Your task to perform on an android device: Show me productivity apps on the Play Store Image 0: 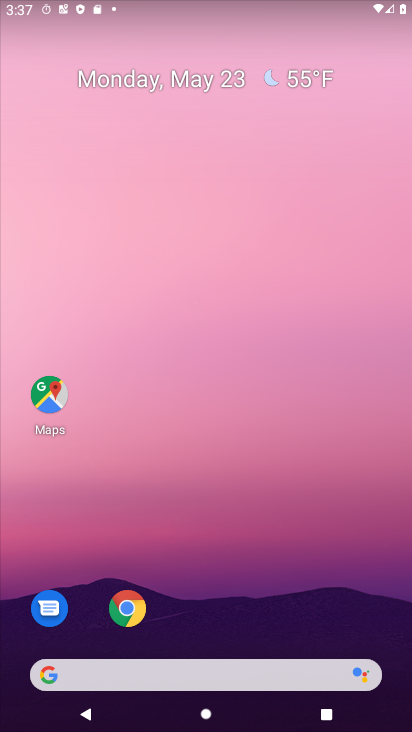
Step 0: click (126, 608)
Your task to perform on an android device: Show me productivity apps on the Play Store Image 1: 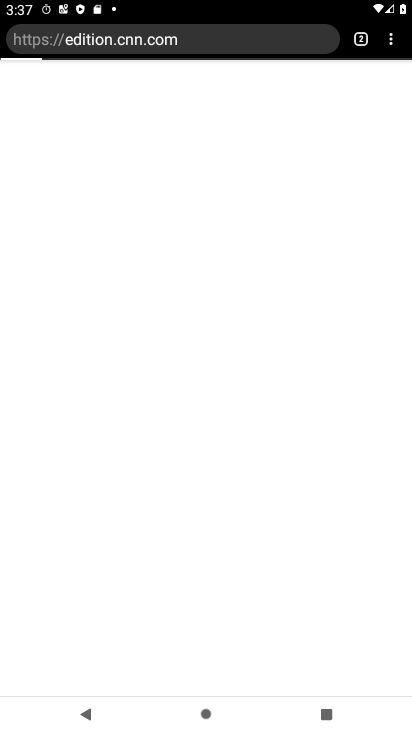
Step 1: press home button
Your task to perform on an android device: Show me productivity apps on the Play Store Image 2: 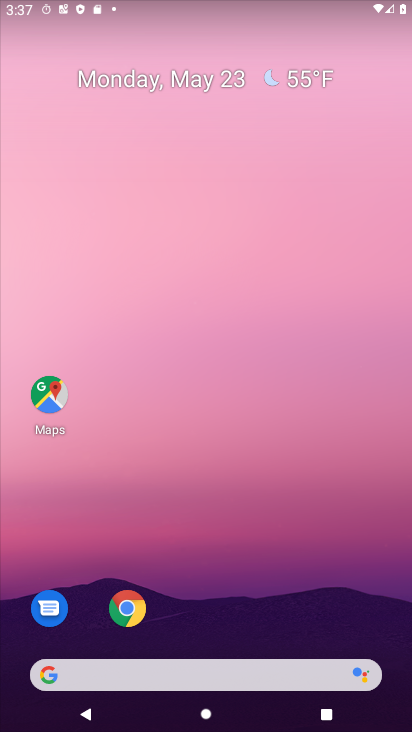
Step 2: drag from (304, 557) to (222, 15)
Your task to perform on an android device: Show me productivity apps on the Play Store Image 3: 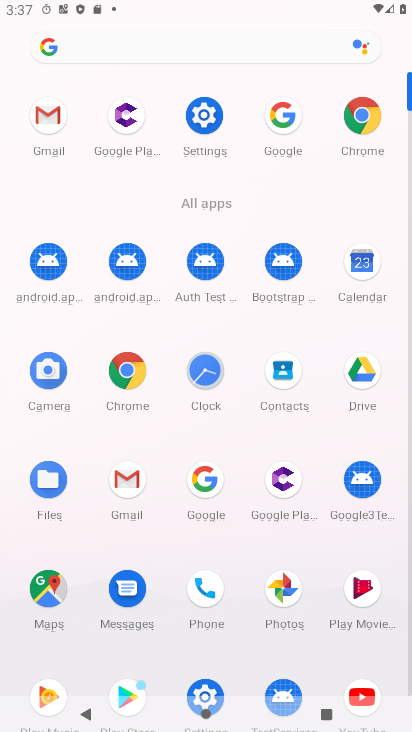
Step 3: click (133, 679)
Your task to perform on an android device: Show me productivity apps on the Play Store Image 4: 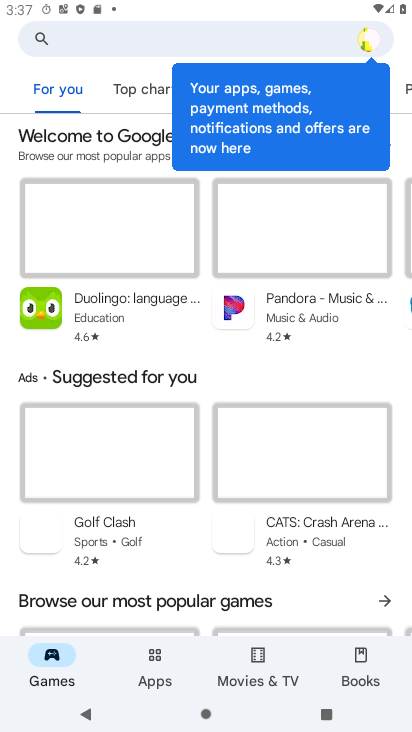
Step 4: click (166, 658)
Your task to perform on an android device: Show me productivity apps on the Play Store Image 5: 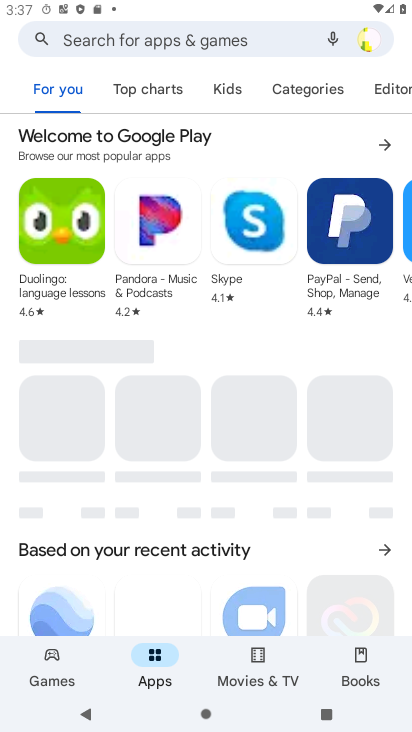
Step 5: click (159, 48)
Your task to perform on an android device: Show me productivity apps on the Play Store Image 6: 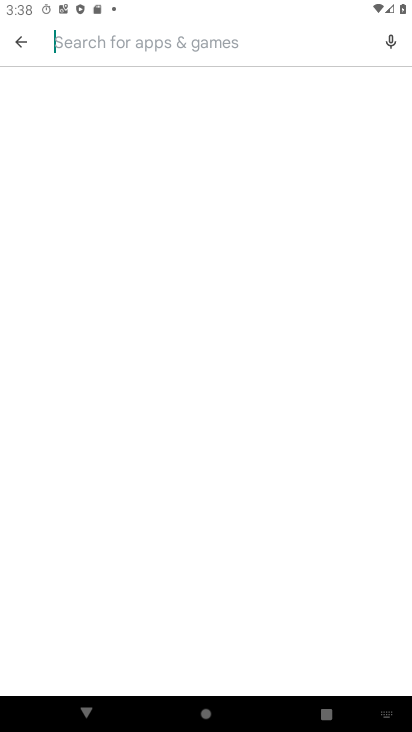
Step 6: type "productivity apps"
Your task to perform on an android device: Show me productivity apps on the Play Store Image 7: 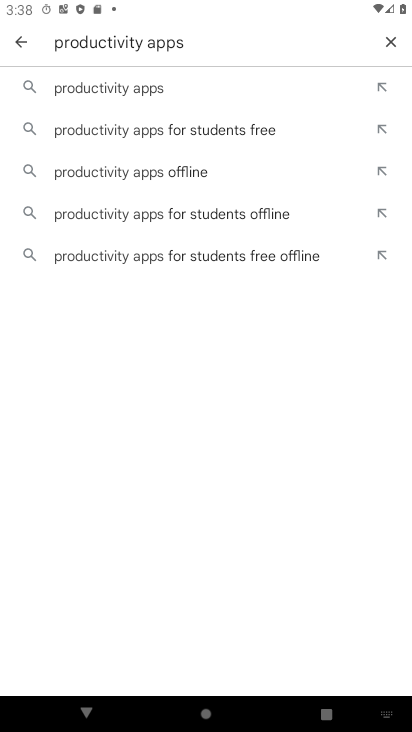
Step 7: click (169, 83)
Your task to perform on an android device: Show me productivity apps on the Play Store Image 8: 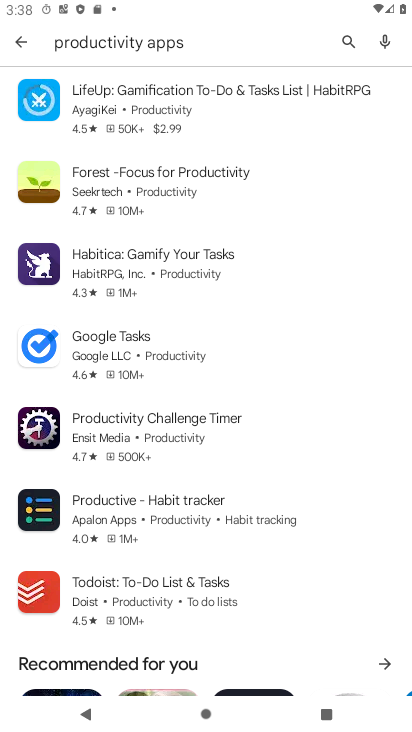
Step 8: task complete